Your task to perform on an android device: Is it going to rain this weekend? Image 0: 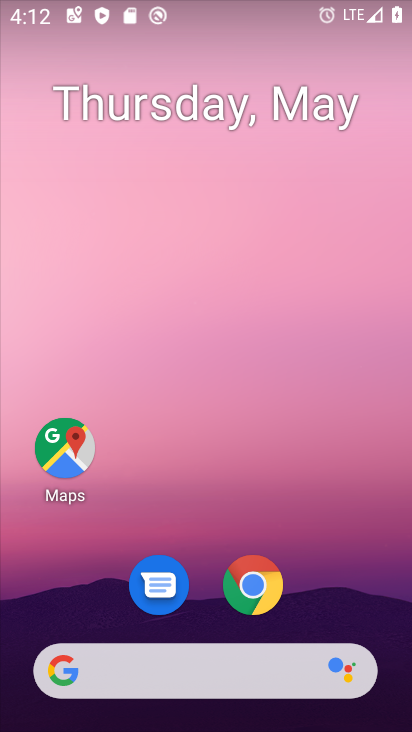
Step 0: click (161, 670)
Your task to perform on an android device: Is it going to rain this weekend? Image 1: 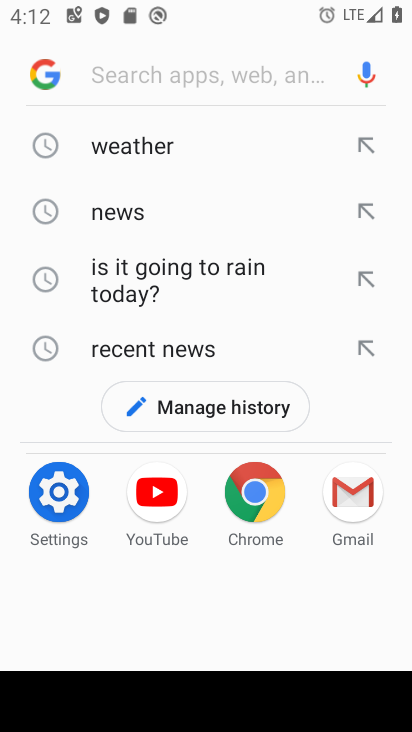
Step 1: click (142, 147)
Your task to perform on an android device: Is it going to rain this weekend? Image 2: 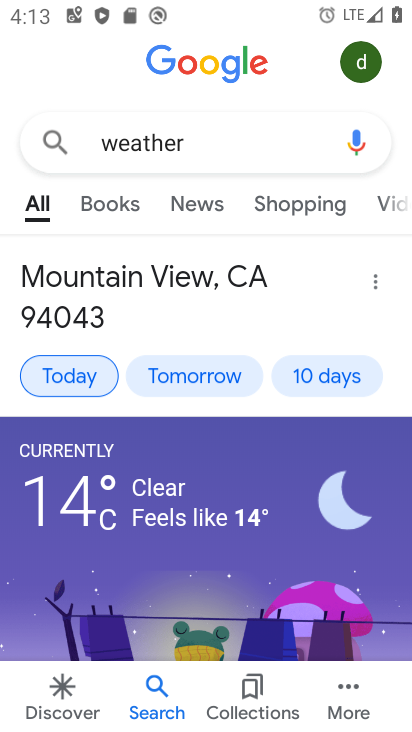
Step 2: click (96, 379)
Your task to perform on an android device: Is it going to rain this weekend? Image 3: 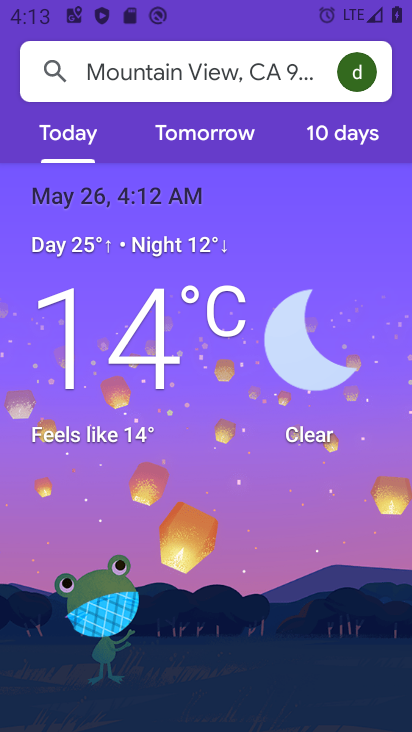
Step 3: click (352, 134)
Your task to perform on an android device: Is it going to rain this weekend? Image 4: 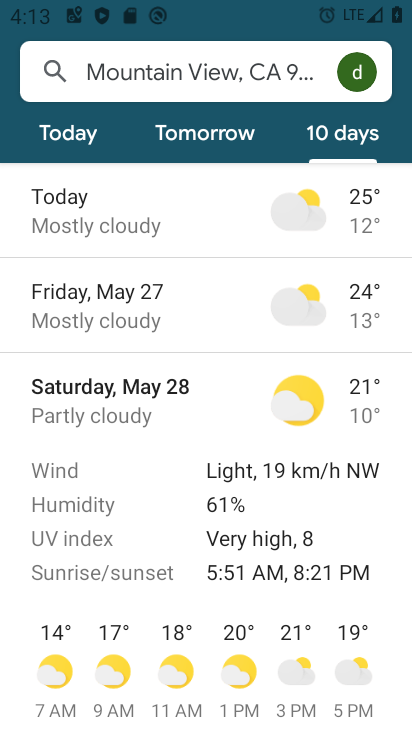
Step 4: task complete